Your task to perform on an android device: turn off smart reply in the gmail app Image 0: 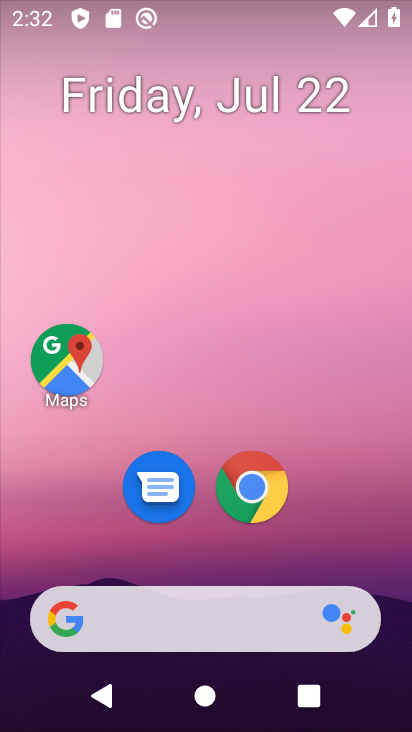
Step 0: drag from (180, 540) to (269, 60)
Your task to perform on an android device: turn off smart reply in the gmail app Image 1: 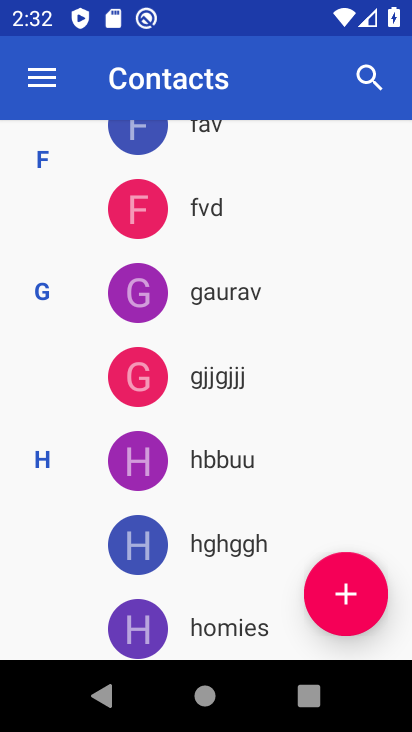
Step 1: press back button
Your task to perform on an android device: turn off smart reply in the gmail app Image 2: 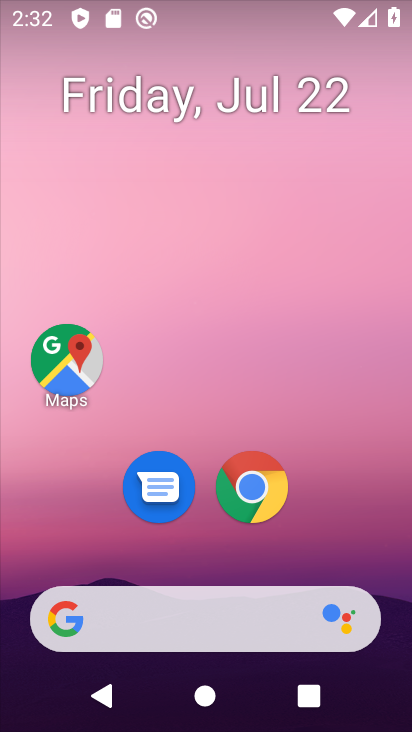
Step 2: drag from (147, 543) to (238, 51)
Your task to perform on an android device: turn off smart reply in the gmail app Image 3: 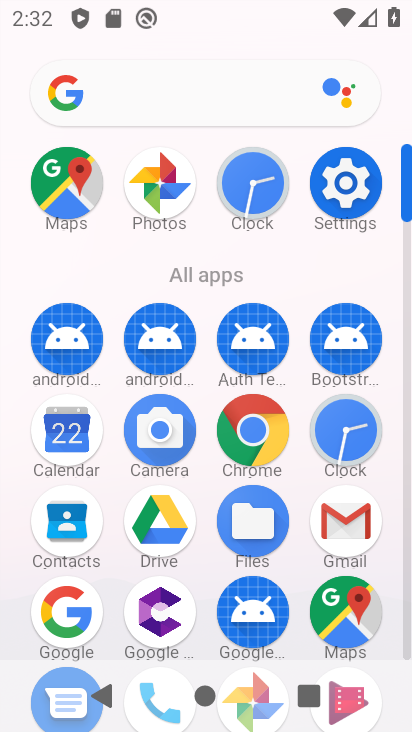
Step 3: click (349, 510)
Your task to perform on an android device: turn off smart reply in the gmail app Image 4: 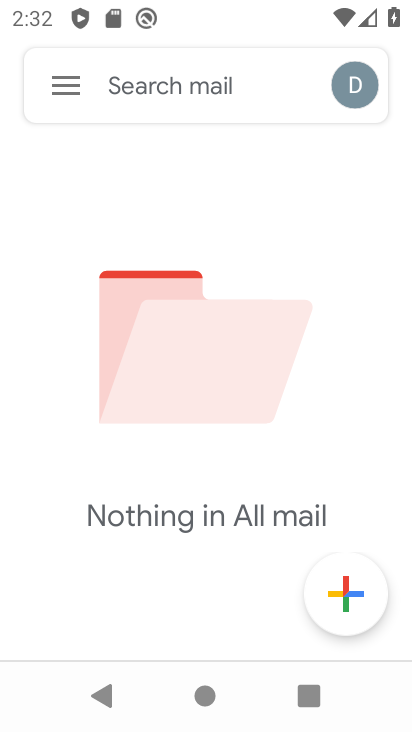
Step 4: click (70, 84)
Your task to perform on an android device: turn off smart reply in the gmail app Image 5: 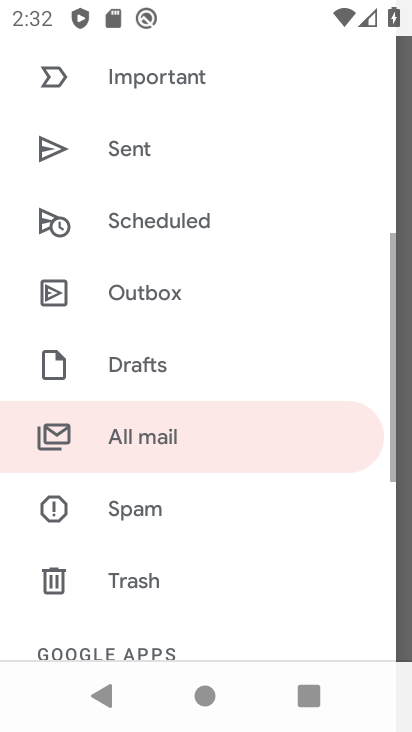
Step 5: drag from (132, 542) to (202, 47)
Your task to perform on an android device: turn off smart reply in the gmail app Image 6: 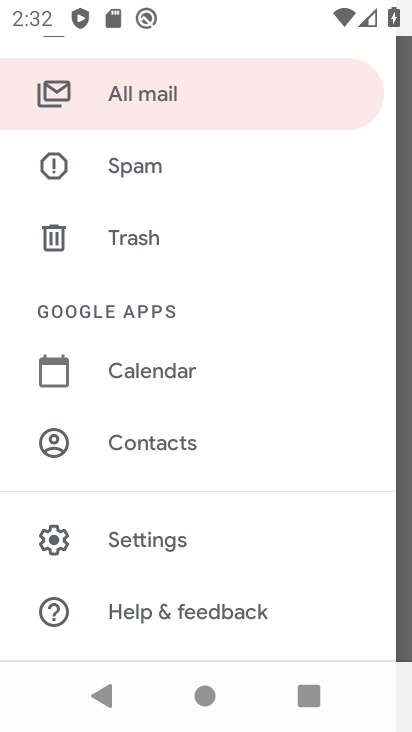
Step 6: click (169, 536)
Your task to perform on an android device: turn off smart reply in the gmail app Image 7: 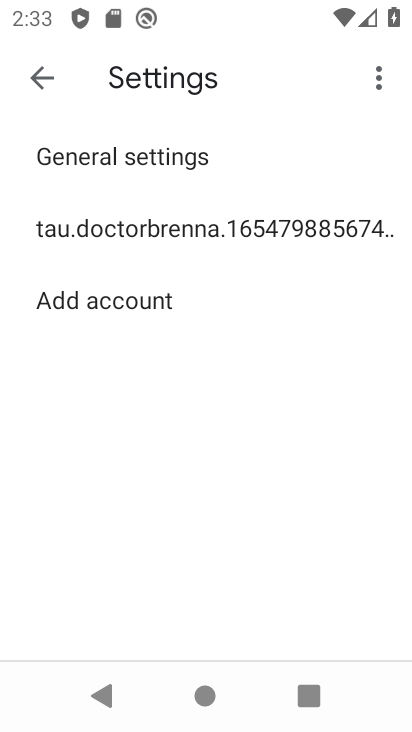
Step 7: click (151, 245)
Your task to perform on an android device: turn off smart reply in the gmail app Image 8: 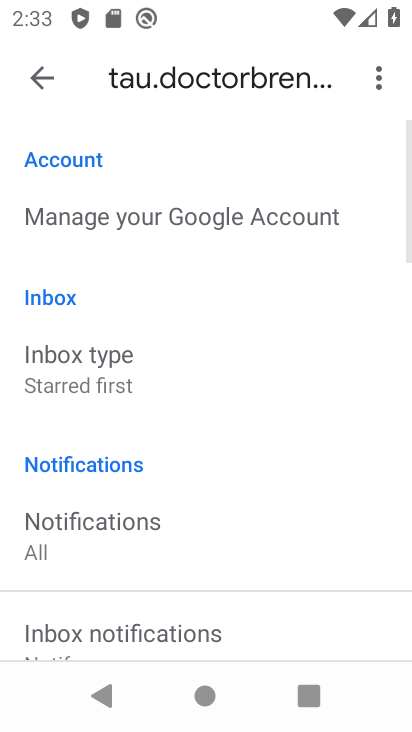
Step 8: drag from (129, 569) to (202, 48)
Your task to perform on an android device: turn off smart reply in the gmail app Image 9: 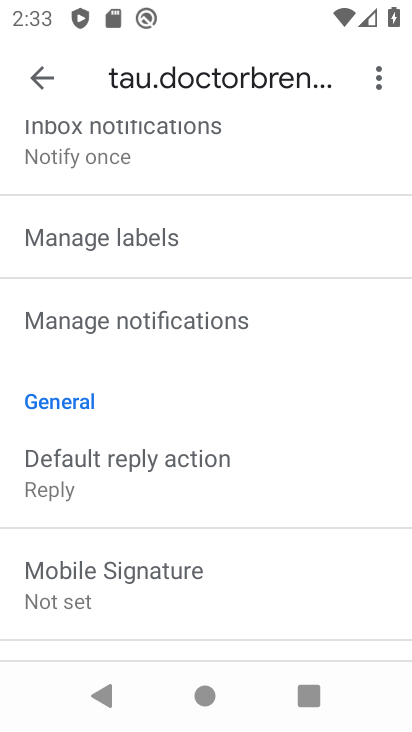
Step 9: drag from (128, 561) to (195, 133)
Your task to perform on an android device: turn off smart reply in the gmail app Image 10: 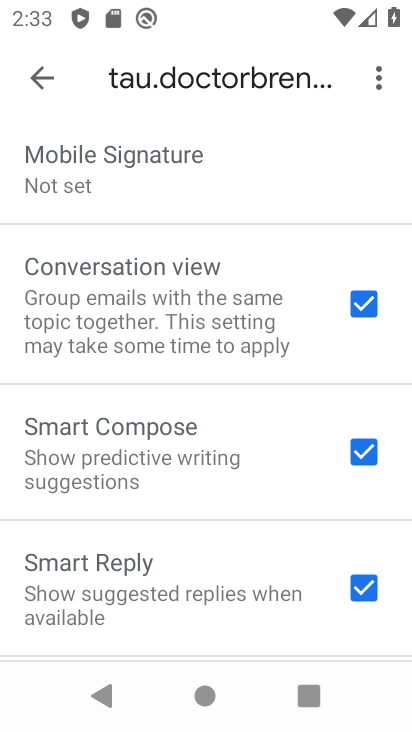
Step 10: click (358, 583)
Your task to perform on an android device: turn off smart reply in the gmail app Image 11: 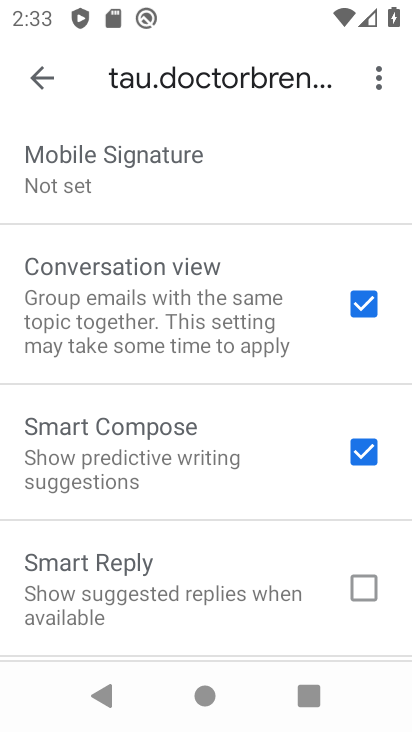
Step 11: task complete